Your task to perform on an android device: Open eBay Image 0: 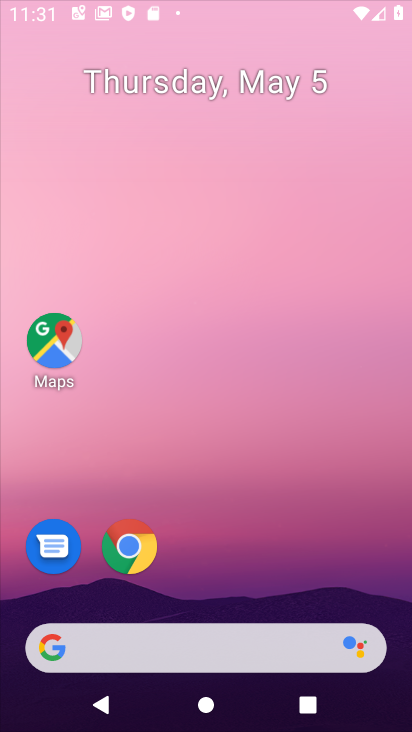
Step 0: click (250, 190)
Your task to perform on an android device: Open eBay Image 1: 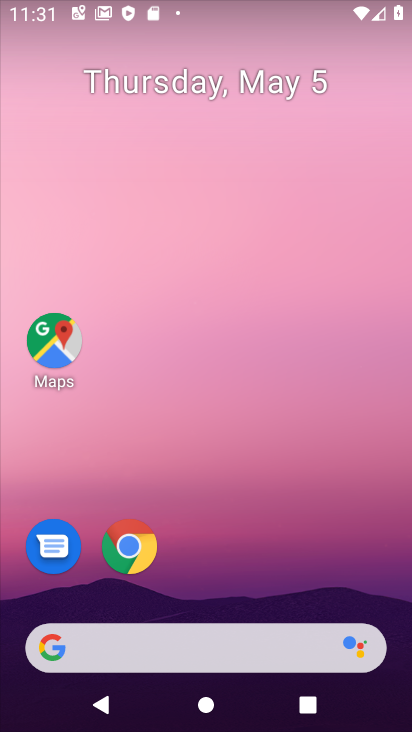
Step 1: click (129, 550)
Your task to perform on an android device: Open eBay Image 2: 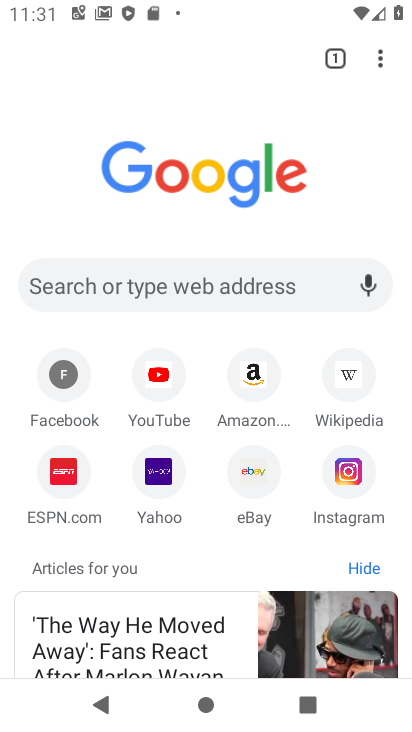
Step 2: click (239, 483)
Your task to perform on an android device: Open eBay Image 3: 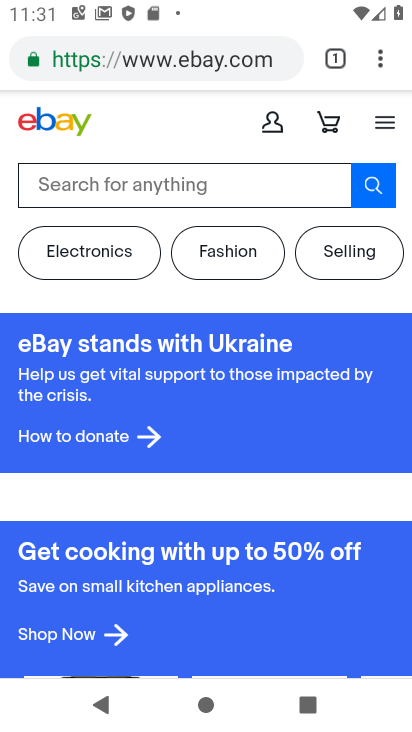
Step 3: task complete